Your task to perform on an android device: find snoozed emails in the gmail app Image 0: 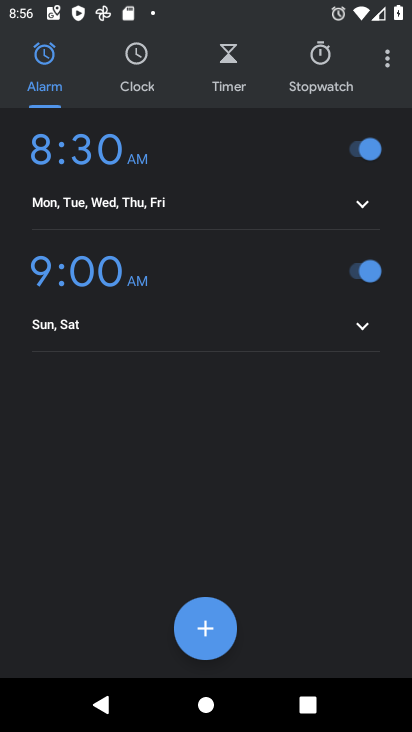
Step 0: press home button
Your task to perform on an android device: find snoozed emails in the gmail app Image 1: 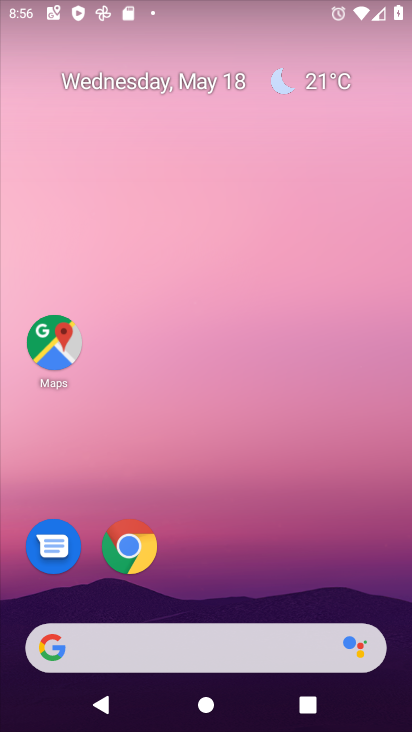
Step 1: drag from (393, 661) to (277, 10)
Your task to perform on an android device: find snoozed emails in the gmail app Image 2: 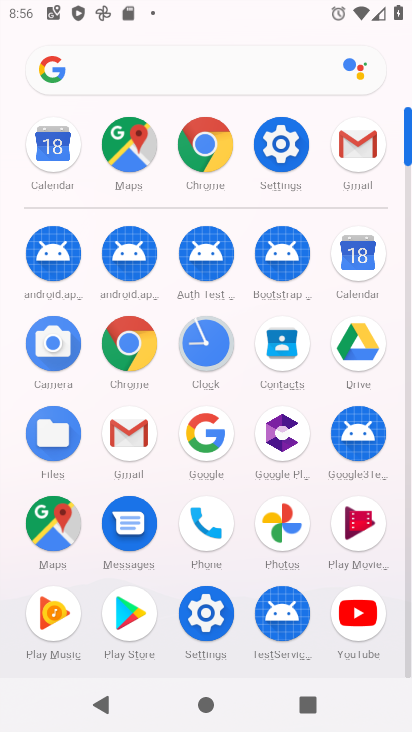
Step 2: click (134, 449)
Your task to perform on an android device: find snoozed emails in the gmail app Image 3: 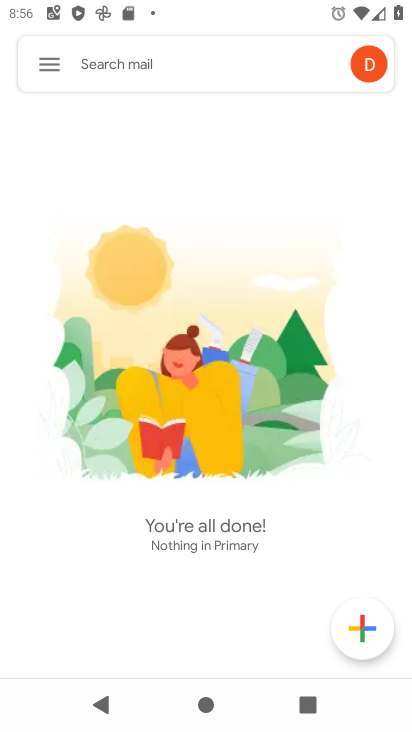
Step 3: click (47, 43)
Your task to perform on an android device: find snoozed emails in the gmail app Image 4: 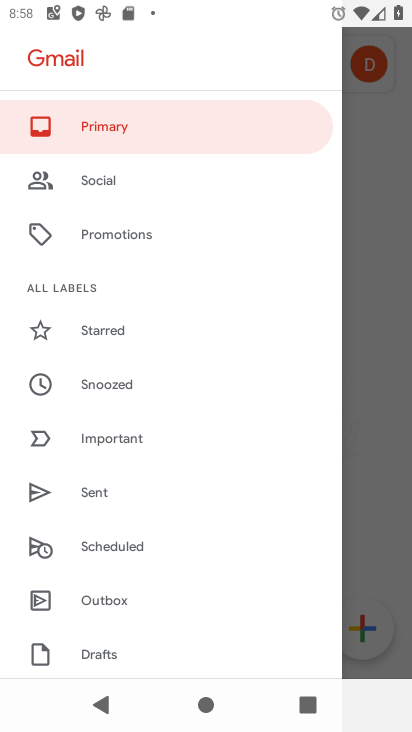
Step 4: click (134, 383)
Your task to perform on an android device: find snoozed emails in the gmail app Image 5: 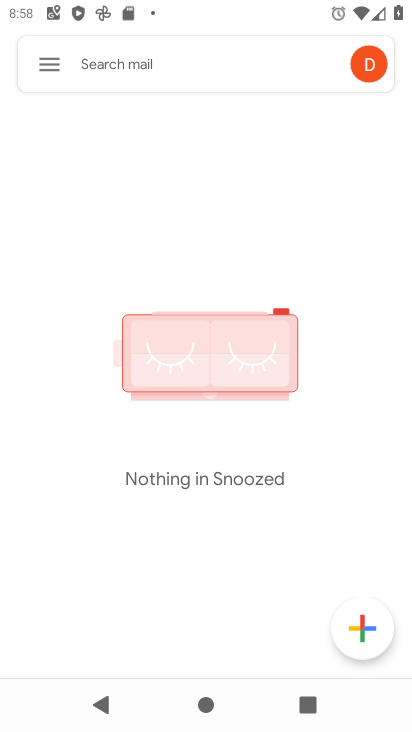
Step 5: task complete